Your task to perform on an android device: Toggle the flashlight Image 0: 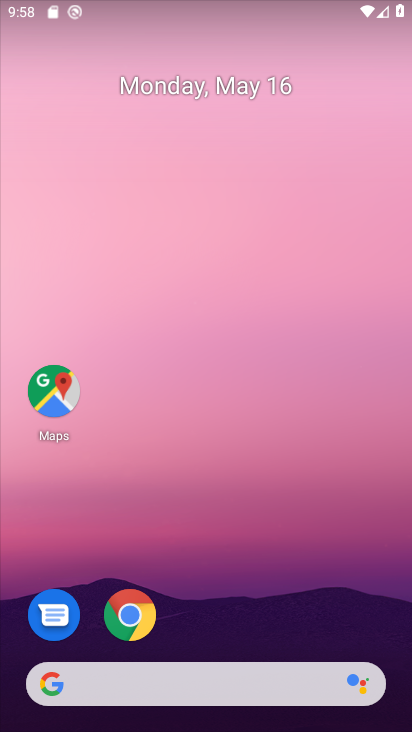
Step 0: drag from (232, 614) to (208, 86)
Your task to perform on an android device: Toggle the flashlight Image 1: 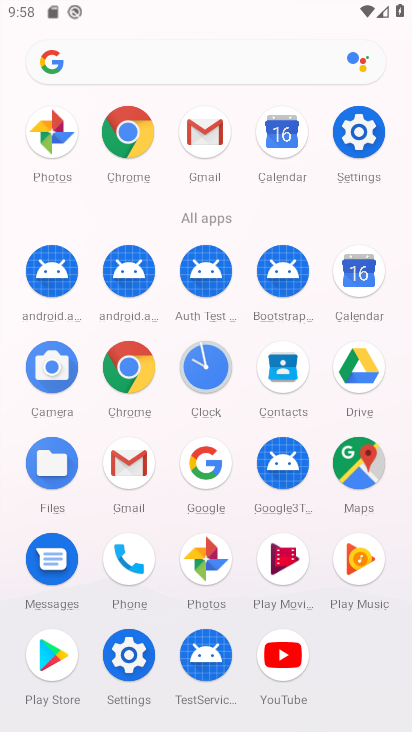
Step 1: click (131, 652)
Your task to perform on an android device: Toggle the flashlight Image 2: 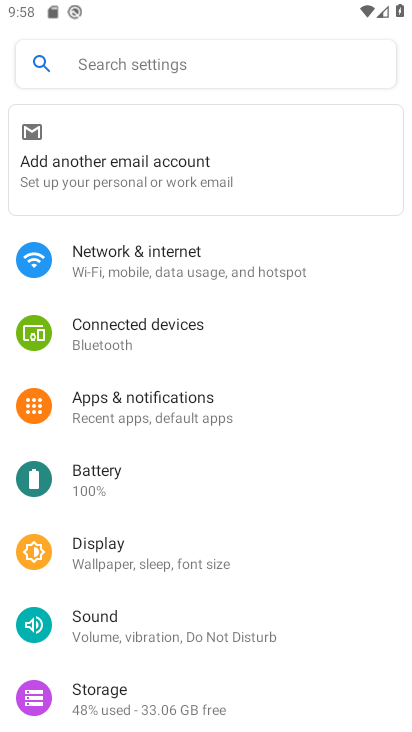
Step 2: click (251, 270)
Your task to perform on an android device: Toggle the flashlight Image 3: 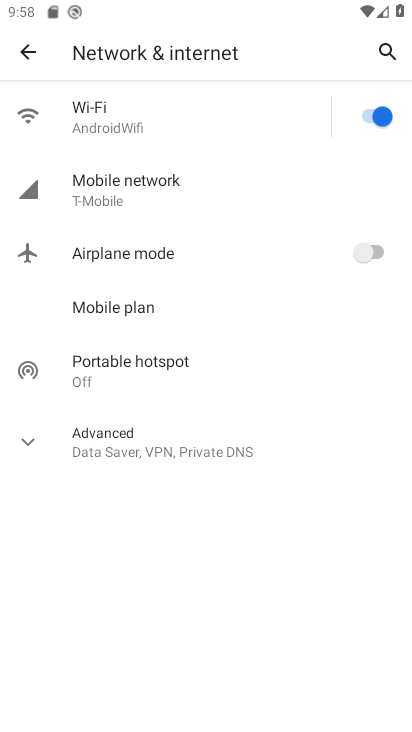
Step 3: click (19, 443)
Your task to perform on an android device: Toggle the flashlight Image 4: 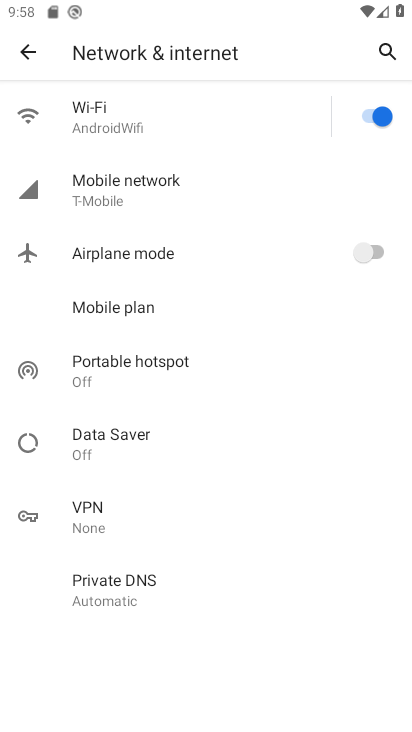
Step 4: task complete